Your task to perform on an android device: toggle airplane mode Image 0: 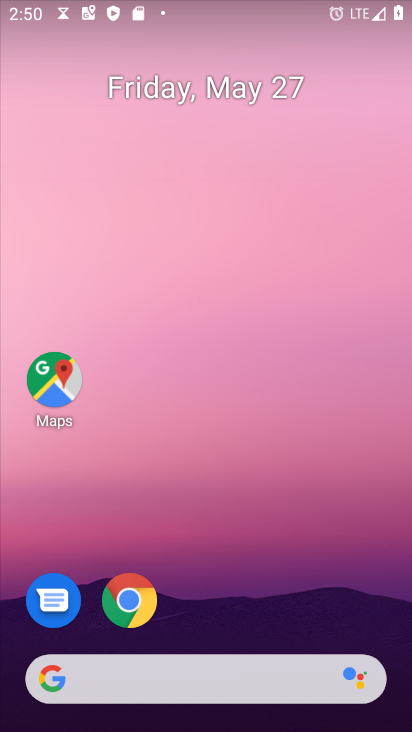
Step 0: drag from (200, 377) to (167, 50)
Your task to perform on an android device: toggle airplane mode Image 1: 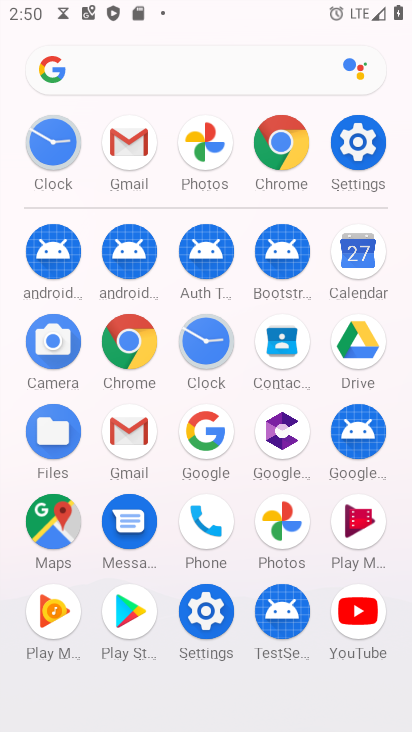
Step 1: drag from (12, 502) to (13, 269)
Your task to perform on an android device: toggle airplane mode Image 2: 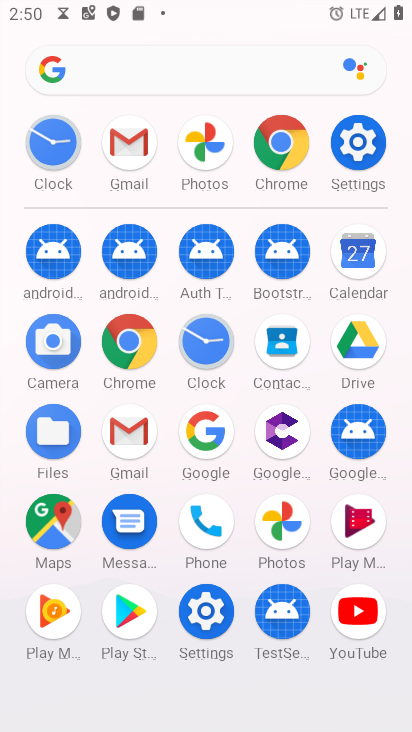
Step 2: click (206, 608)
Your task to perform on an android device: toggle airplane mode Image 3: 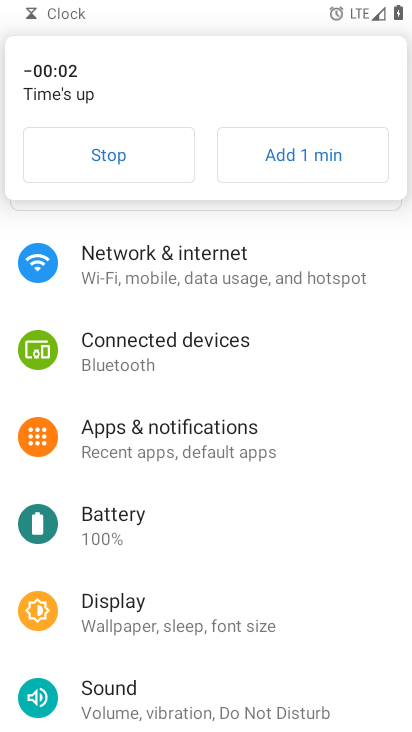
Step 3: click (137, 151)
Your task to perform on an android device: toggle airplane mode Image 4: 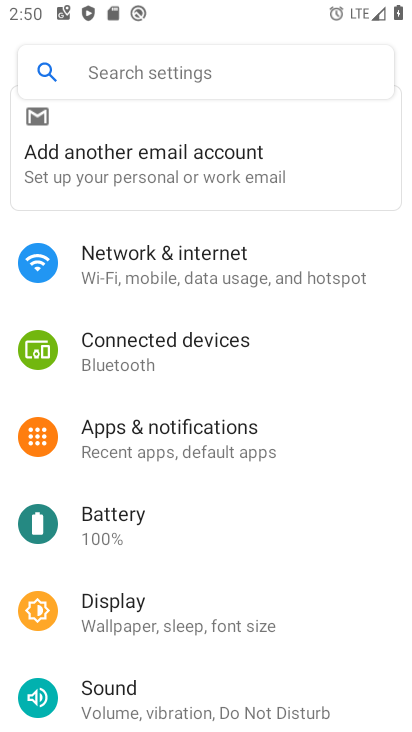
Step 4: click (251, 268)
Your task to perform on an android device: toggle airplane mode Image 5: 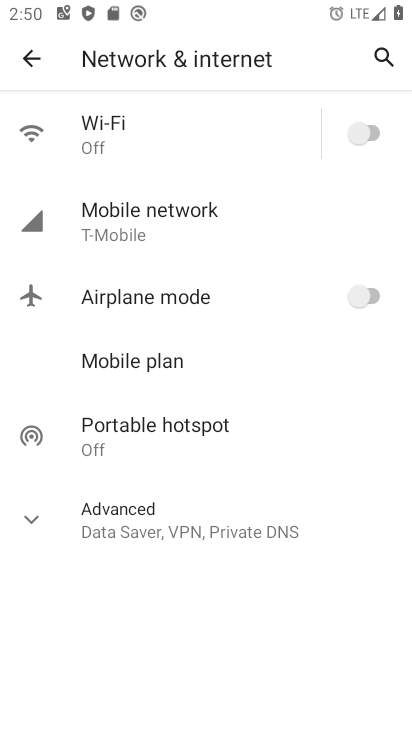
Step 5: click (368, 296)
Your task to perform on an android device: toggle airplane mode Image 6: 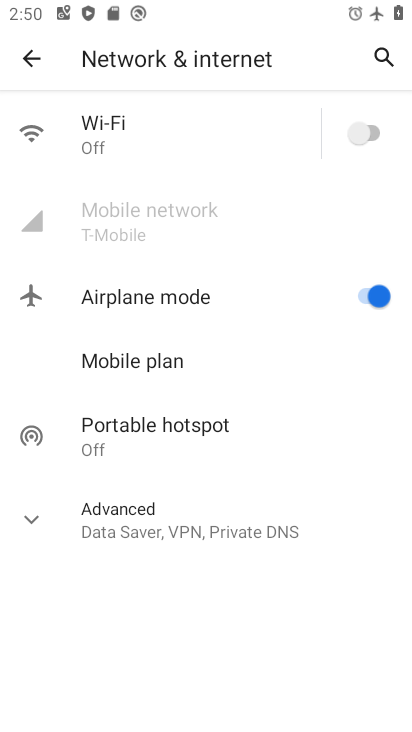
Step 6: click (28, 512)
Your task to perform on an android device: toggle airplane mode Image 7: 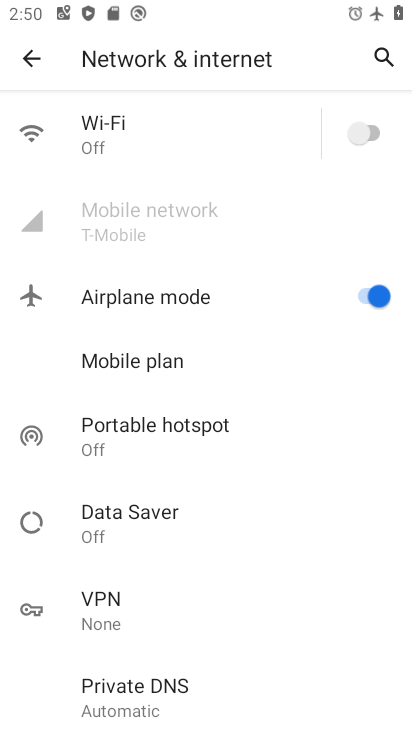
Step 7: task complete